Your task to perform on an android device: turn off wifi Image 0: 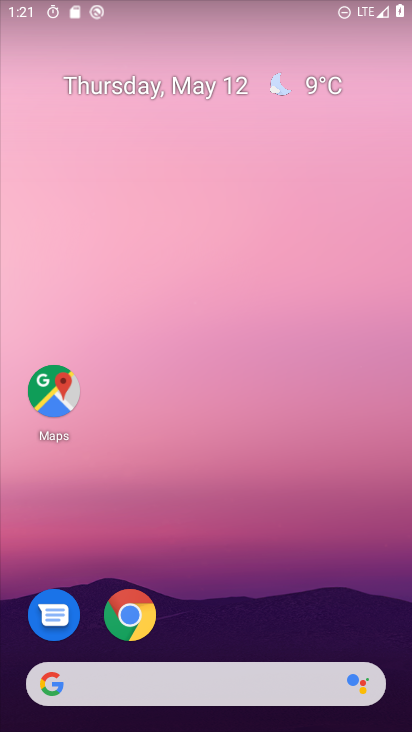
Step 0: drag from (246, 610) to (197, 162)
Your task to perform on an android device: turn off wifi Image 1: 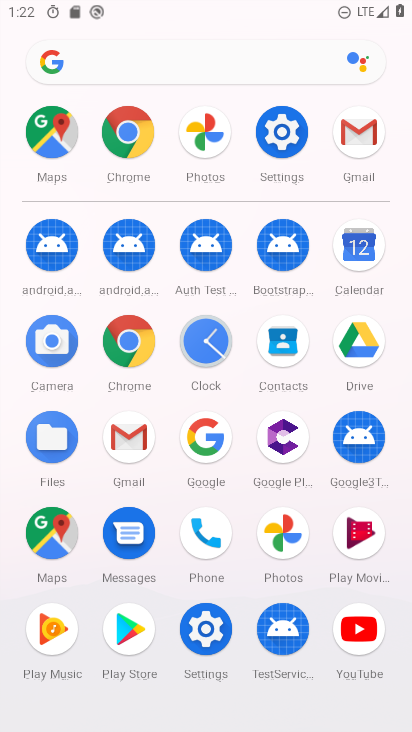
Step 1: click (295, 143)
Your task to perform on an android device: turn off wifi Image 2: 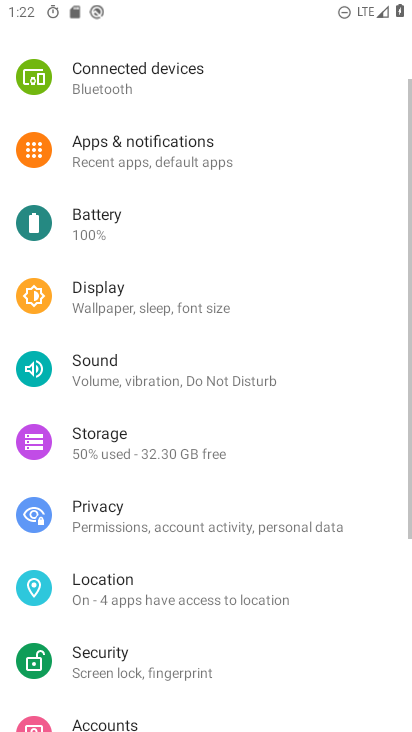
Step 2: drag from (187, 132) to (206, 596)
Your task to perform on an android device: turn off wifi Image 3: 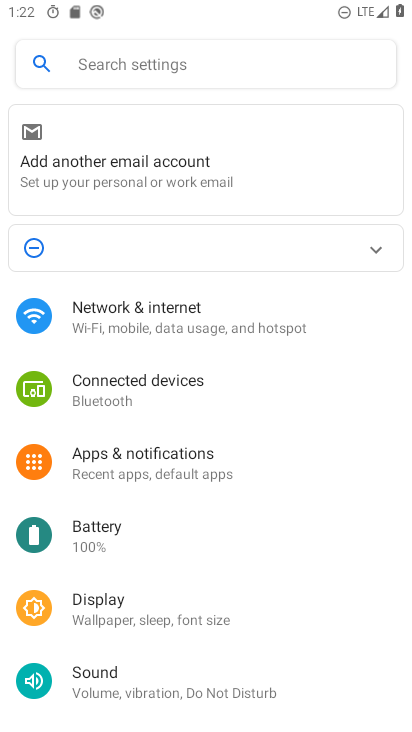
Step 3: click (179, 322)
Your task to perform on an android device: turn off wifi Image 4: 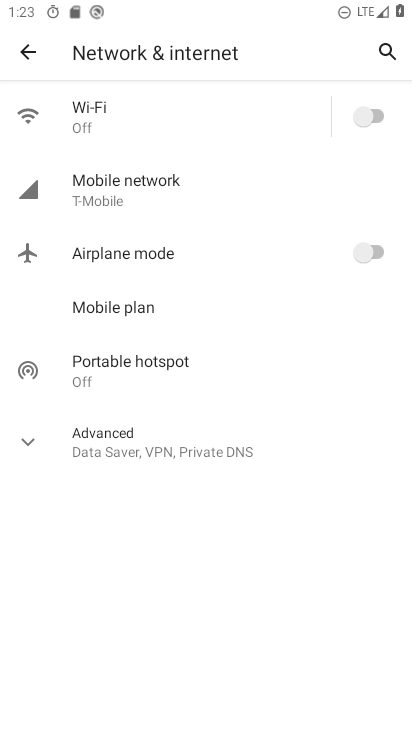
Step 4: task complete